Your task to perform on an android device: turn off location Image 0: 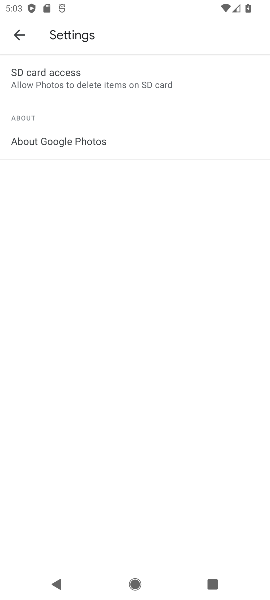
Step 0: press home button
Your task to perform on an android device: turn off location Image 1: 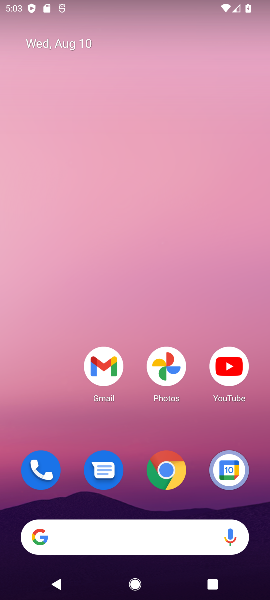
Step 1: drag from (174, 508) to (124, 91)
Your task to perform on an android device: turn off location Image 2: 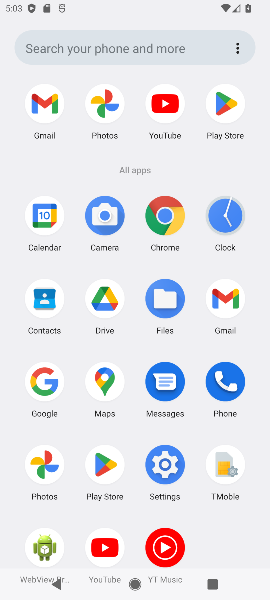
Step 2: click (176, 454)
Your task to perform on an android device: turn off location Image 3: 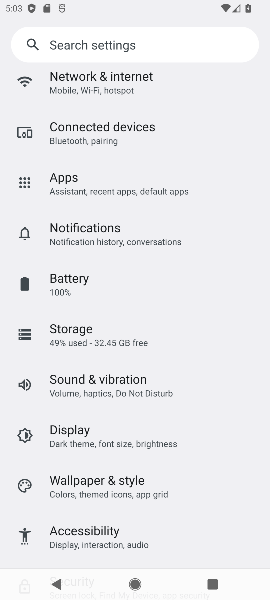
Step 3: drag from (123, 536) to (125, 320)
Your task to perform on an android device: turn off location Image 4: 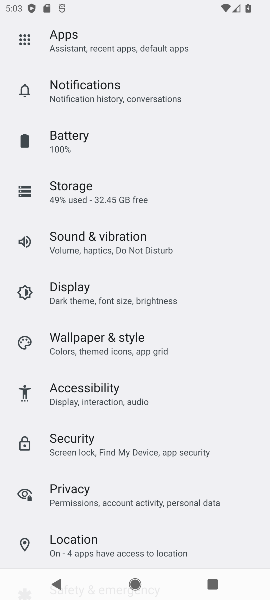
Step 4: click (96, 525)
Your task to perform on an android device: turn off location Image 5: 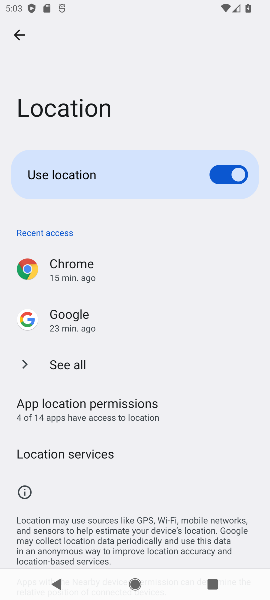
Step 5: task complete